Your task to perform on an android device: add a contact Image 0: 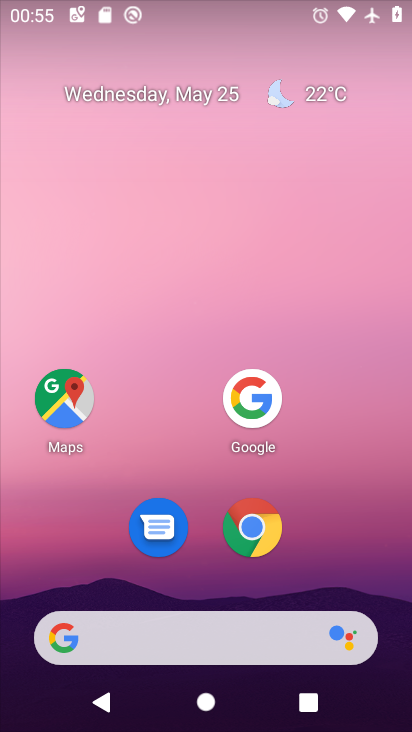
Step 0: click (73, 400)
Your task to perform on an android device: add a contact Image 1: 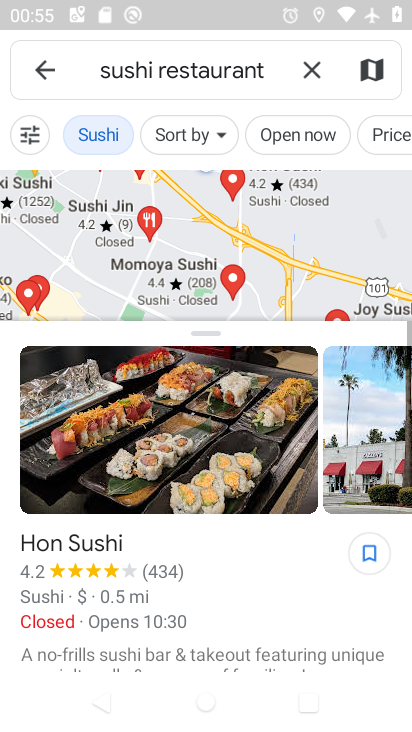
Step 1: task complete